Your task to perform on an android device: change timer sound Image 0: 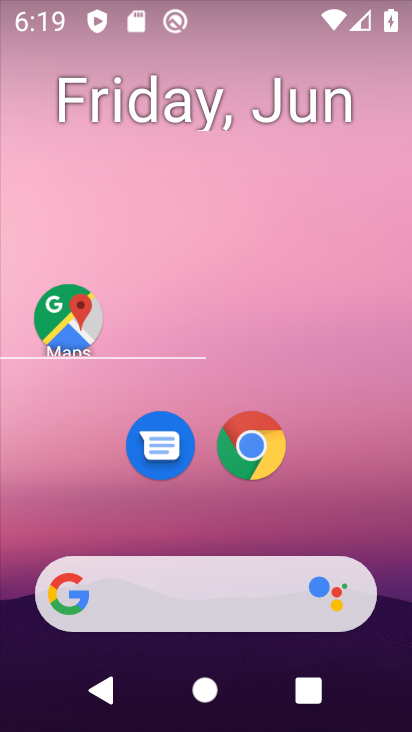
Step 0: click (254, 448)
Your task to perform on an android device: change timer sound Image 1: 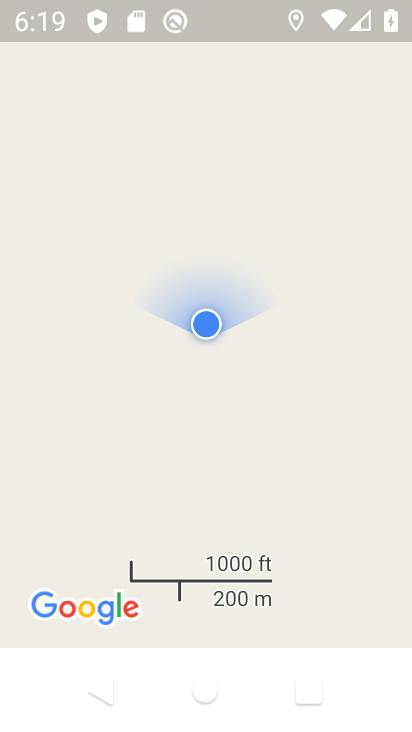
Step 1: press home button
Your task to perform on an android device: change timer sound Image 2: 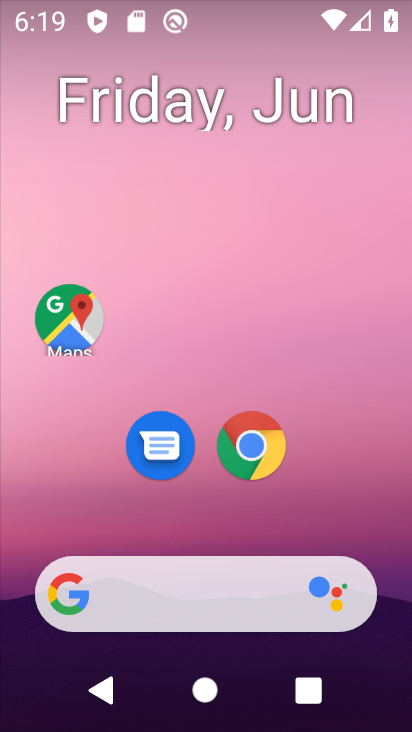
Step 2: drag from (216, 537) to (220, 281)
Your task to perform on an android device: change timer sound Image 3: 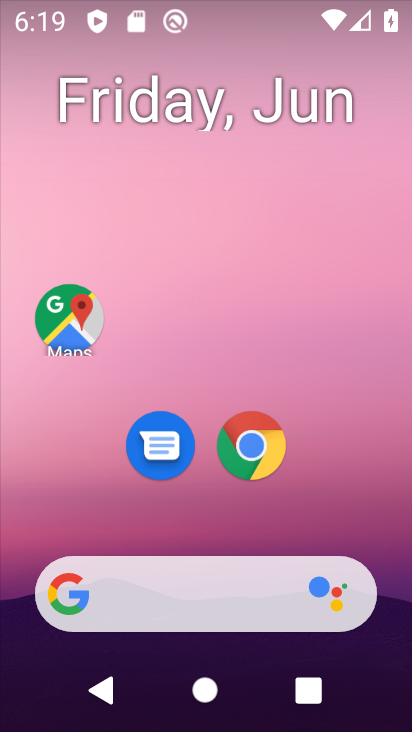
Step 3: drag from (235, 512) to (214, 84)
Your task to perform on an android device: change timer sound Image 4: 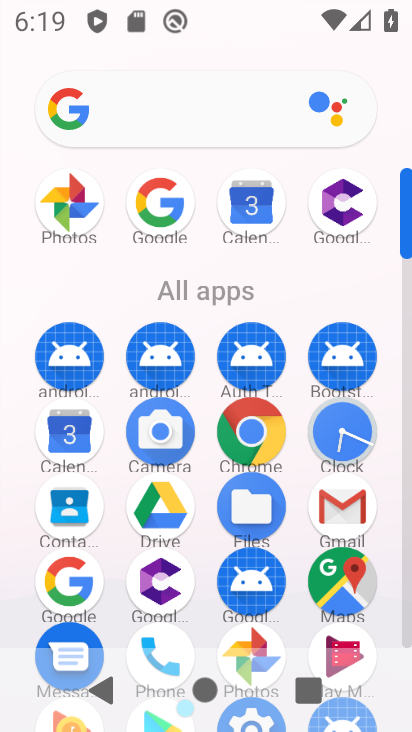
Step 4: click (346, 428)
Your task to perform on an android device: change timer sound Image 5: 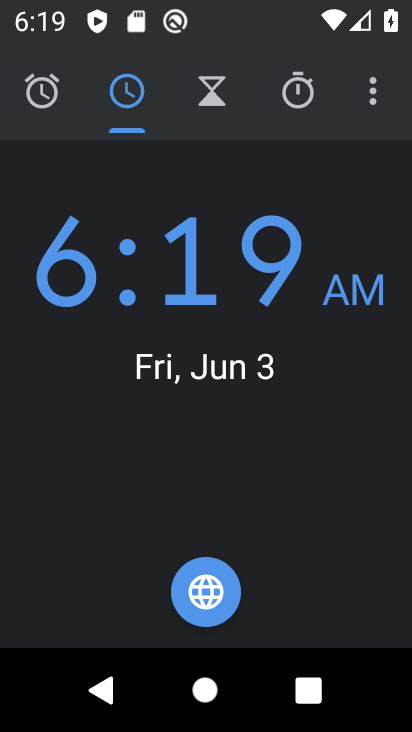
Step 5: click (370, 95)
Your task to perform on an android device: change timer sound Image 6: 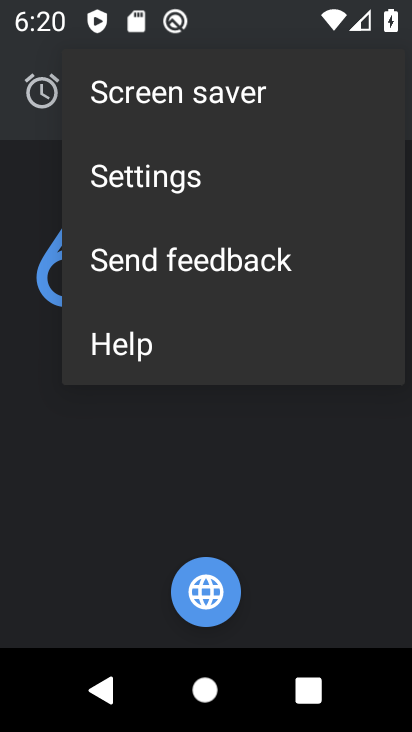
Step 6: click (197, 192)
Your task to perform on an android device: change timer sound Image 7: 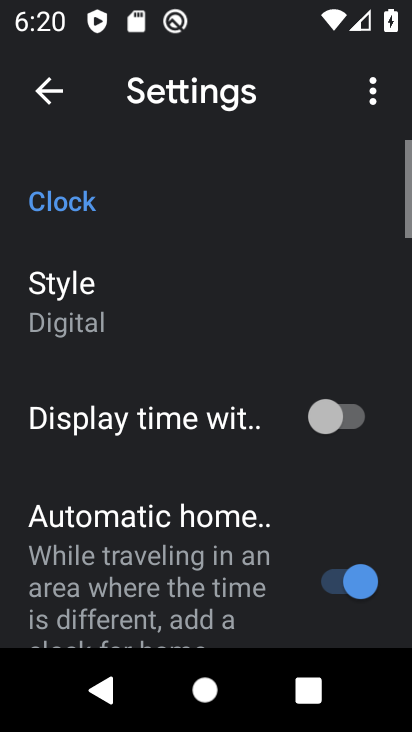
Step 7: drag from (189, 495) to (165, 231)
Your task to perform on an android device: change timer sound Image 8: 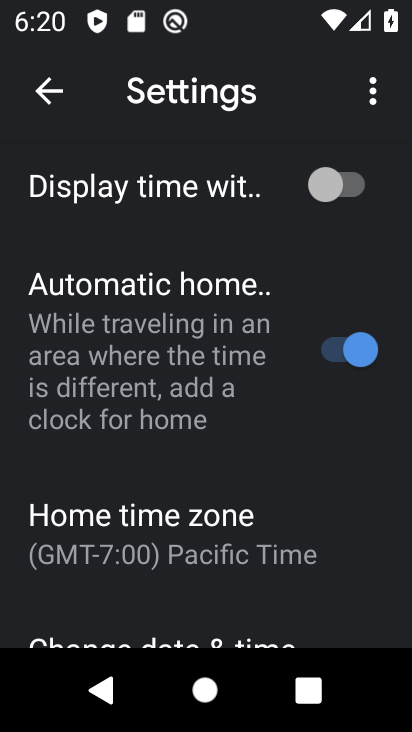
Step 8: drag from (189, 552) to (176, 300)
Your task to perform on an android device: change timer sound Image 9: 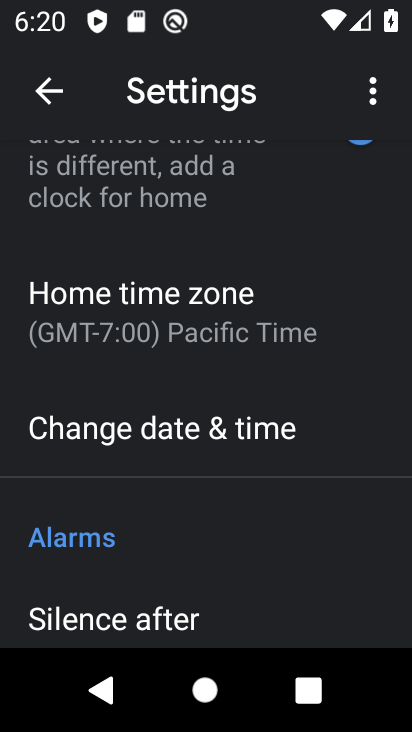
Step 9: drag from (219, 548) to (261, 357)
Your task to perform on an android device: change timer sound Image 10: 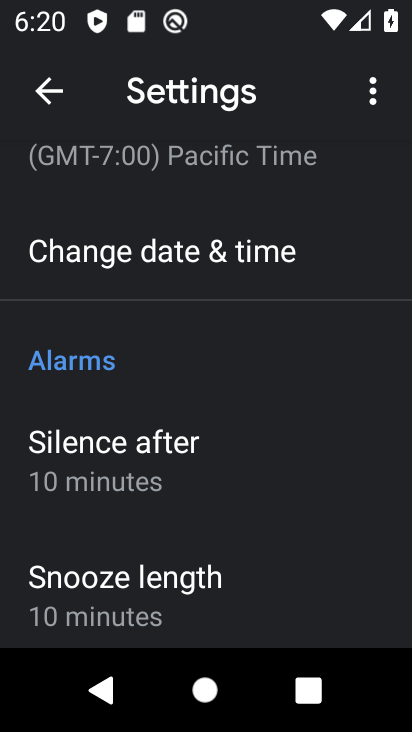
Step 10: drag from (230, 594) to (214, 317)
Your task to perform on an android device: change timer sound Image 11: 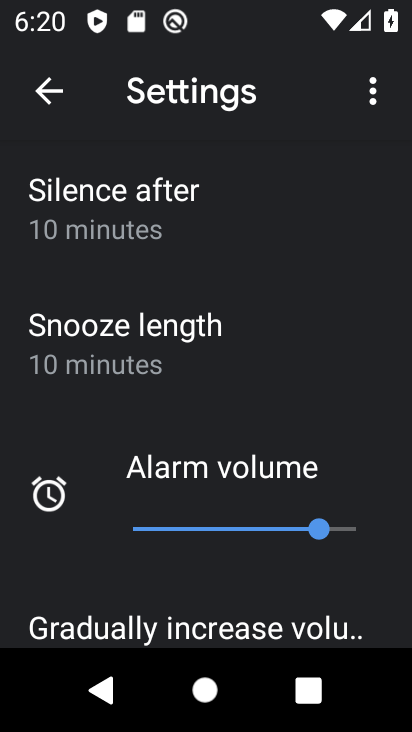
Step 11: drag from (193, 531) to (198, 249)
Your task to perform on an android device: change timer sound Image 12: 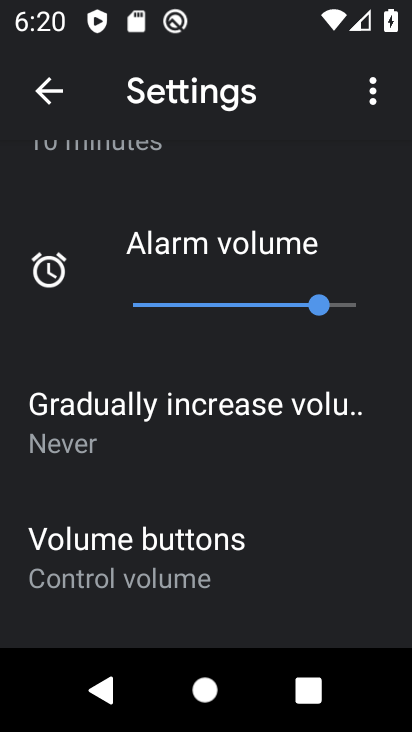
Step 12: drag from (215, 473) to (231, 202)
Your task to perform on an android device: change timer sound Image 13: 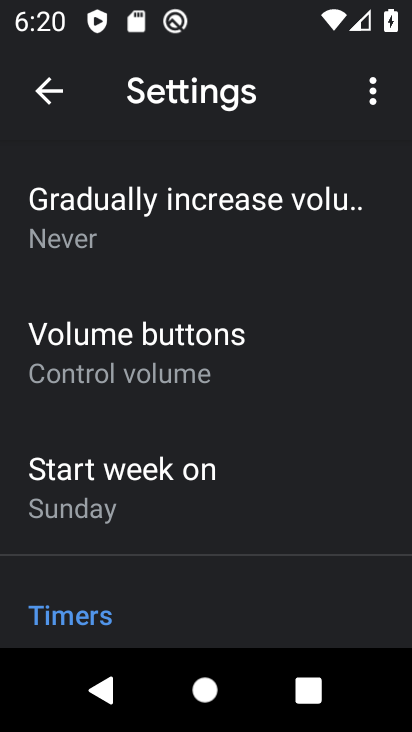
Step 13: drag from (199, 477) to (201, 265)
Your task to perform on an android device: change timer sound Image 14: 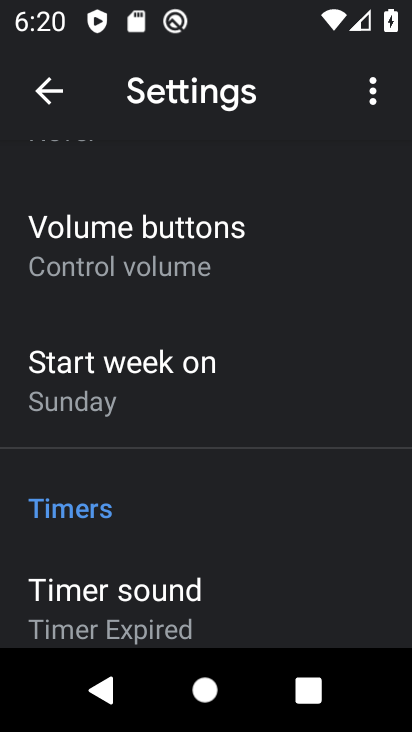
Step 14: drag from (181, 517) to (193, 371)
Your task to perform on an android device: change timer sound Image 15: 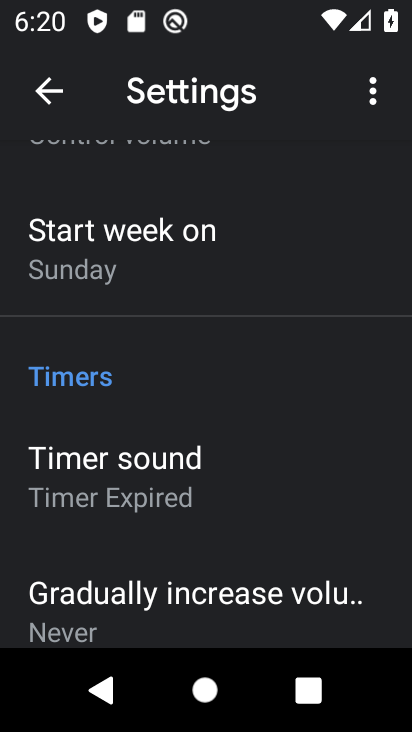
Step 15: click (147, 484)
Your task to perform on an android device: change timer sound Image 16: 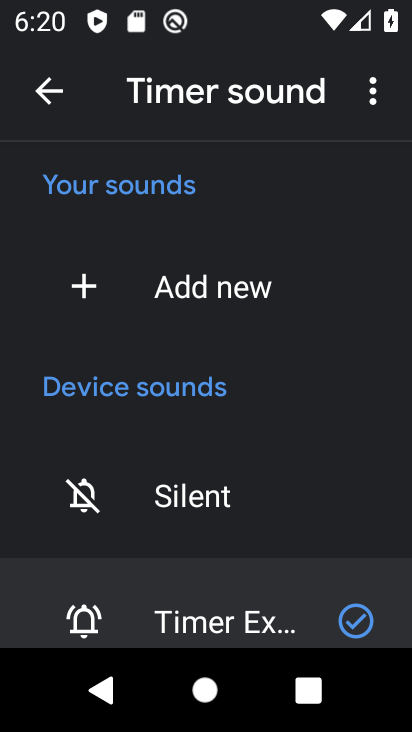
Step 16: drag from (277, 503) to (269, 321)
Your task to perform on an android device: change timer sound Image 17: 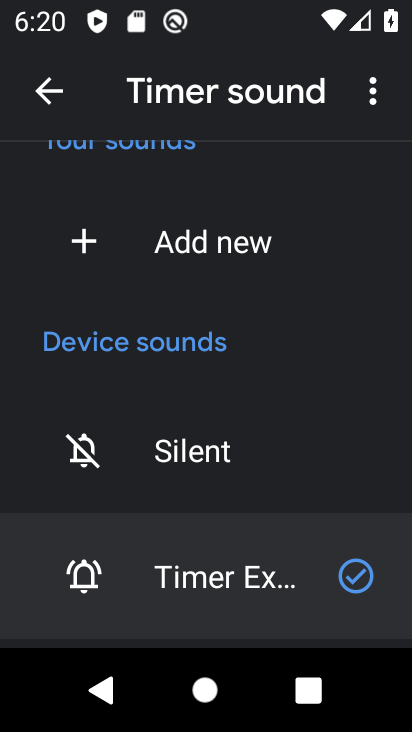
Step 17: drag from (162, 473) to (191, 273)
Your task to perform on an android device: change timer sound Image 18: 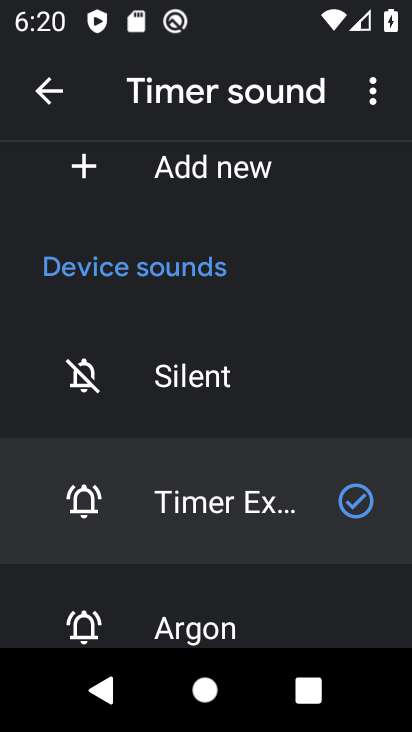
Step 18: click (96, 614)
Your task to perform on an android device: change timer sound Image 19: 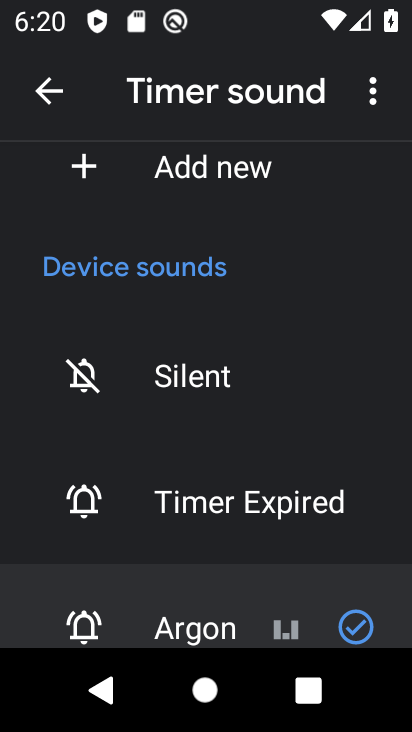
Step 19: task complete